Your task to perform on an android device: When is my next appointment? Image 0: 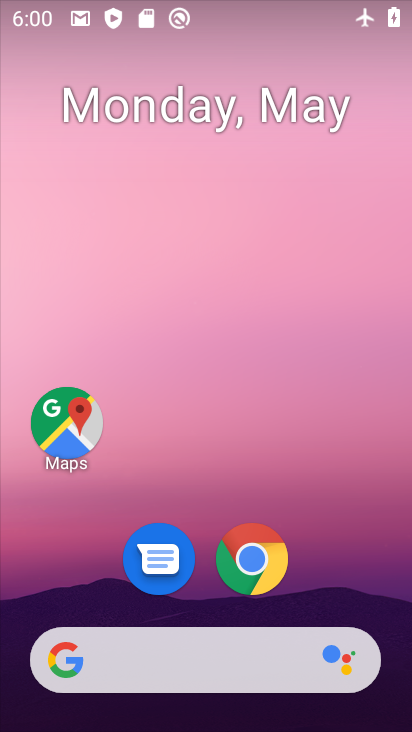
Step 0: drag from (343, 586) to (294, 66)
Your task to perform on an android device: When is my next appointment? Image 1: 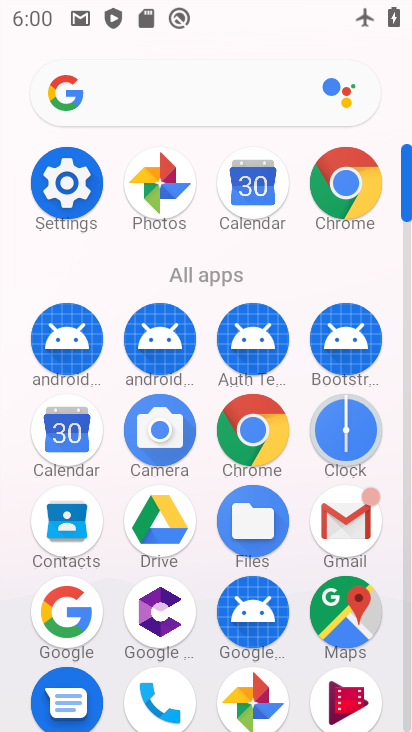
Step 1: click (61, 439)
Your task to perform on an android device: When is my next appointment? Image 2: 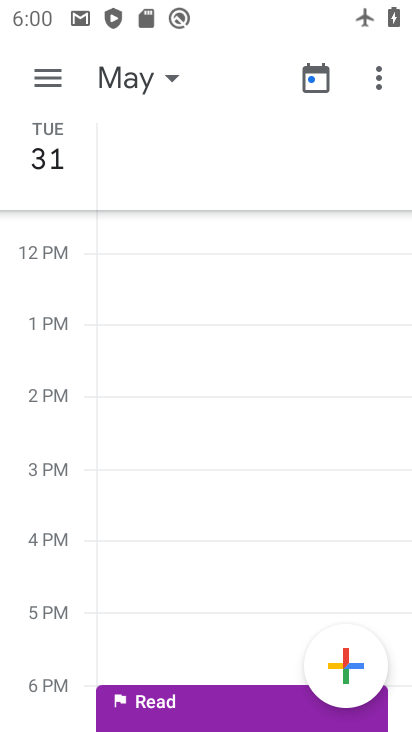
Step 2: task complete